Your task to perform on an android device: toggle notifications settings in the gmail app Image 0: 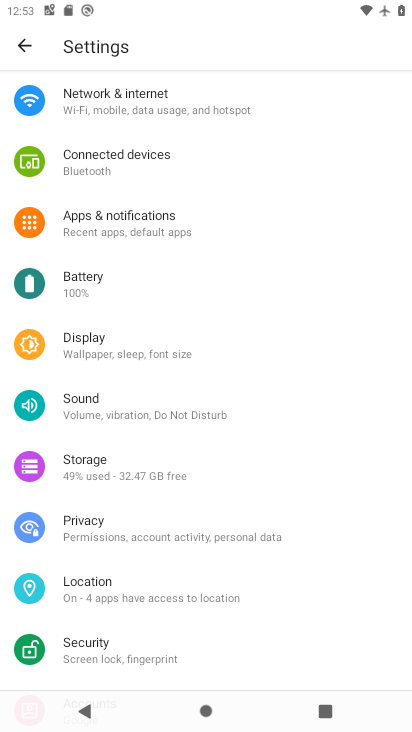
Step 0: press home button
Your task to perform on an android device: toggle notifications settings in the gmail app Image 1: 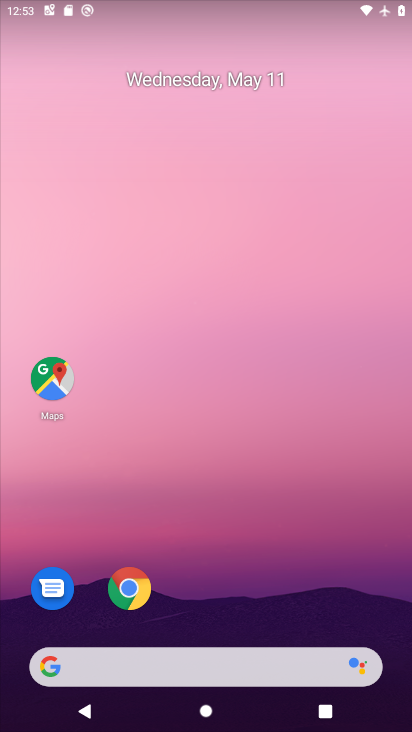
Step 1: drag from (242, 651) to (280, 47)
Your task to perform on an android device: toggle notifications settings in the gmail app Image 2: 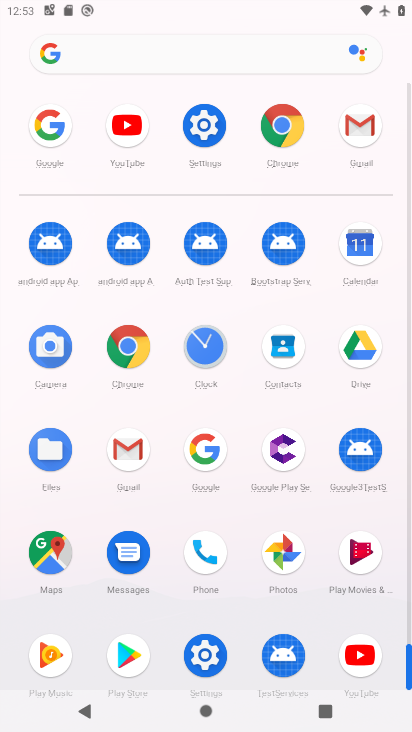
Step 2: click (350, 138)
Your task to perform on an android device: toggle notifications settings in the gmail app Image 3: 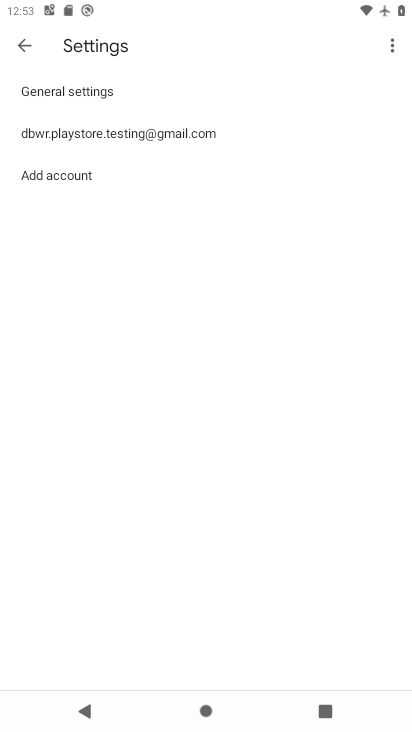
Step 3: click (69, 130)
Your task to perform on an android device: toggle notifications settings in the gmail app Image 4: 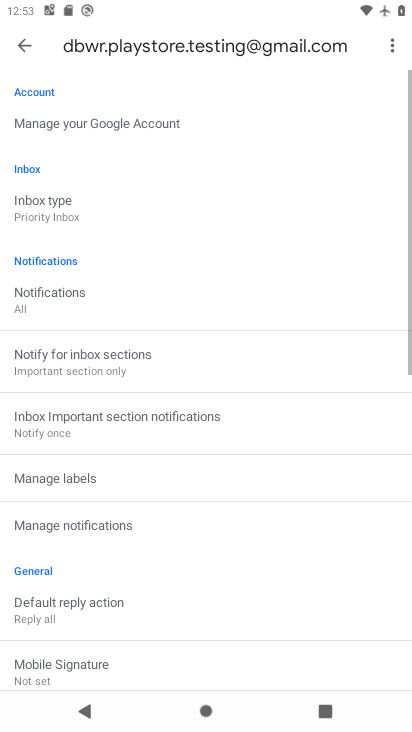
Step 4: click (24, 48)
Your task to perform on an android device: toggle notifications settings in the gmail app Image 5: 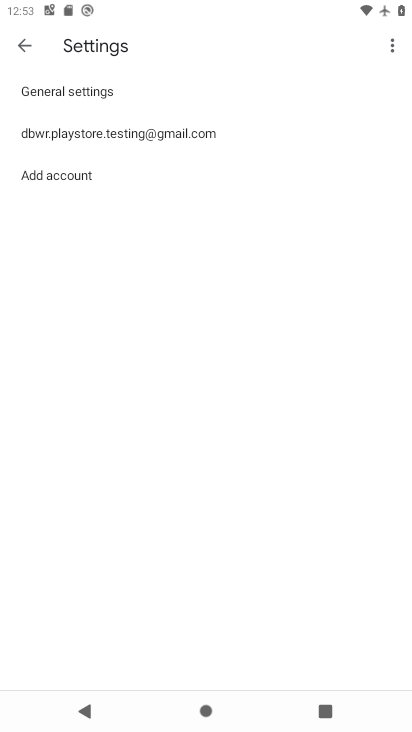
Step 5: click (84, 81)
Your task to perform on an android device: toggle notifications settings in the gmail app Image 6: 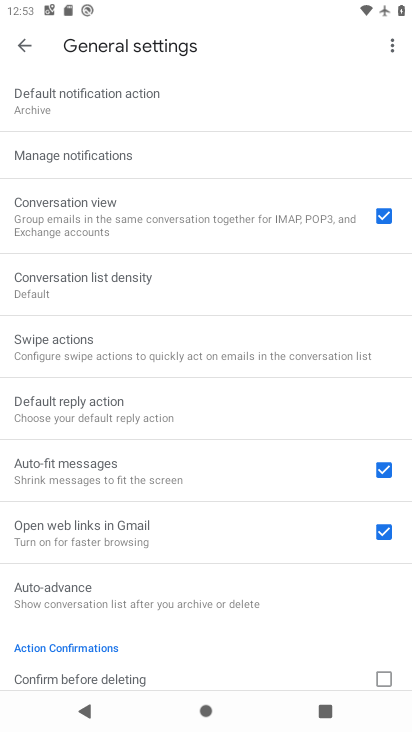
Step 6: click (109, 139)
Your task to perform on an android device: toggle notifications settings in the gmail app Image 7: 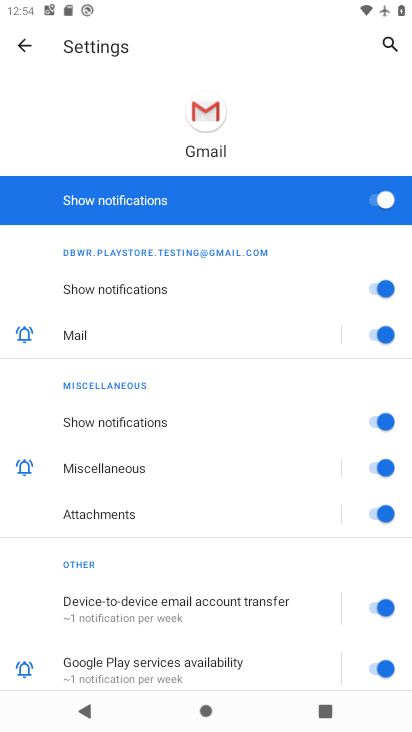
Step 7: click (370, 199)
Your task to perform on an android device: toggle notifications settings in the gmail app Image 8: 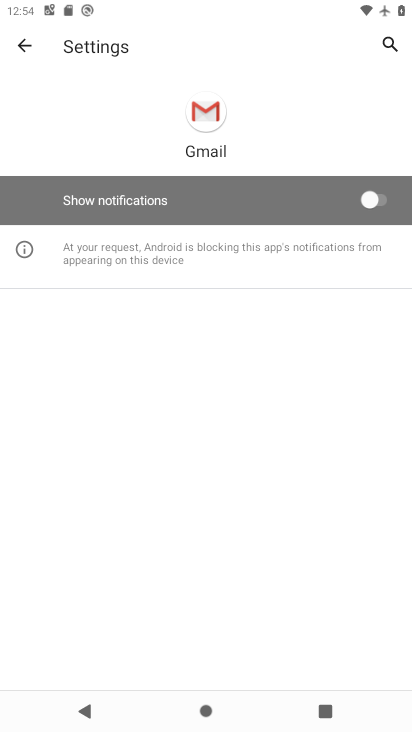
Step 8: task complete